Your task to perform on an android device: Go to notification settings Image 0: 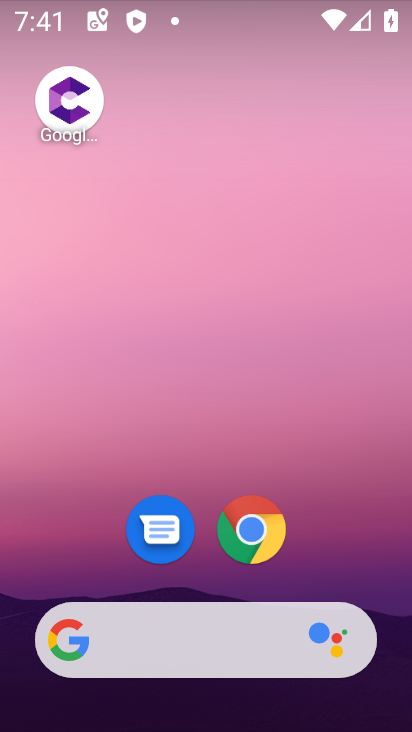
Step 0: drag from (189, 697) to (135, 19)
Your task to perform on an android device: Go to notification settings Image 1: 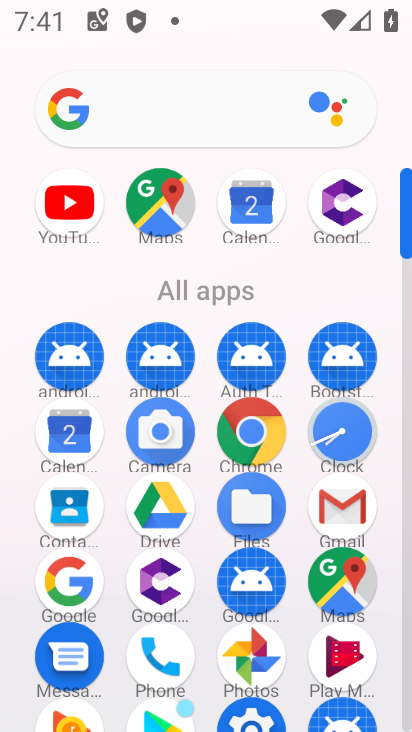
Step 1: click (255, 710)
Your task to perform on an android device: Go to notification settings Image 2: 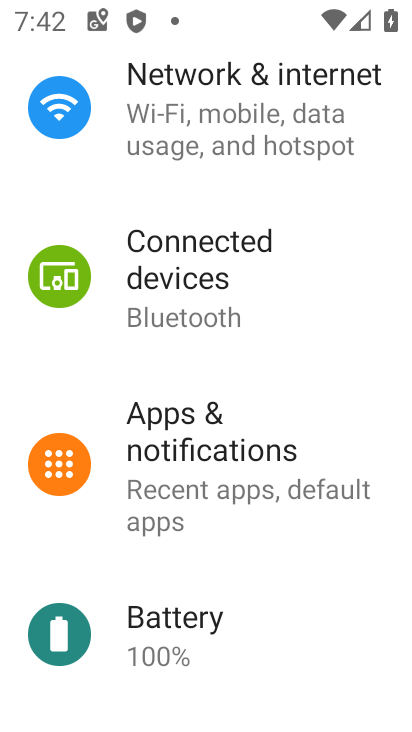
Step 2: click (239, 503)
Your task to perform on an android device: Go to notification settings Image 3: 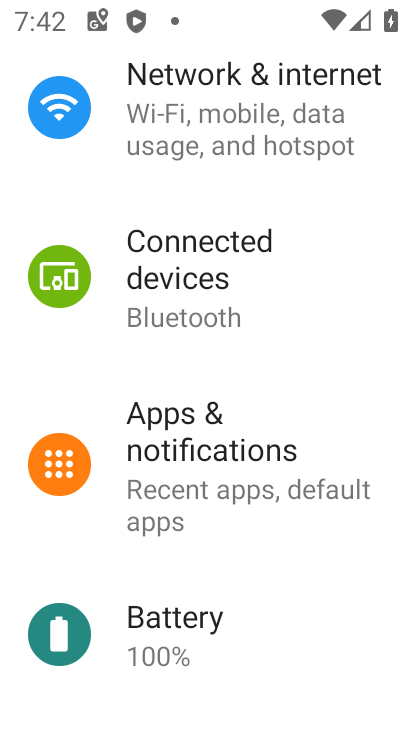
Step 3: click (239, 503)
Your task to perform on an android device: Go to notification settings Image 4: 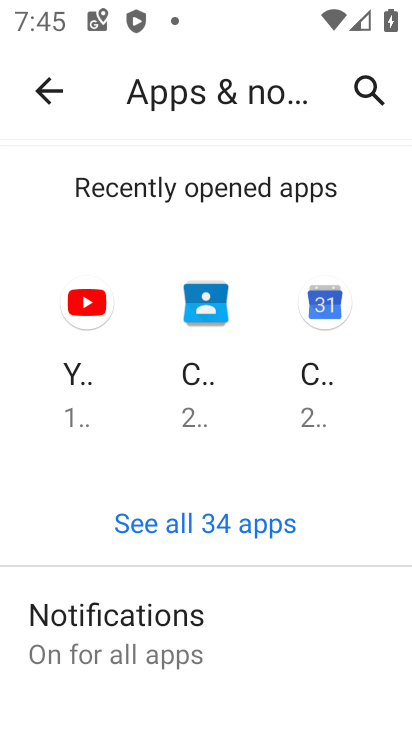
Step 4: task complete